Your task to perform on an android device: Open calendar and show me the third week of next month Image 0: 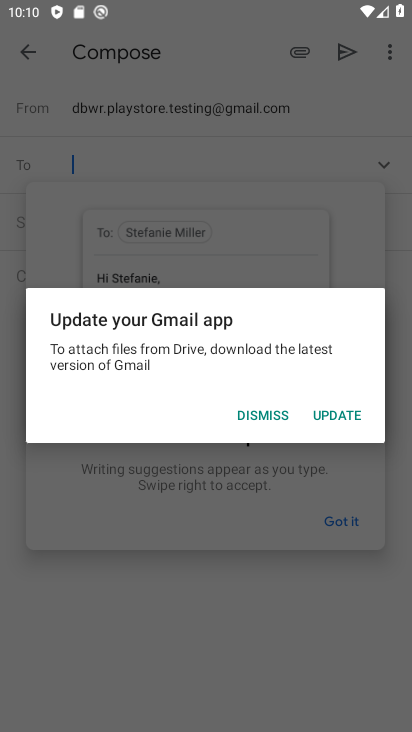
Step 0: press home button
Your task to perform on an android device: Open calendar and show me the third week of next month Image 1: 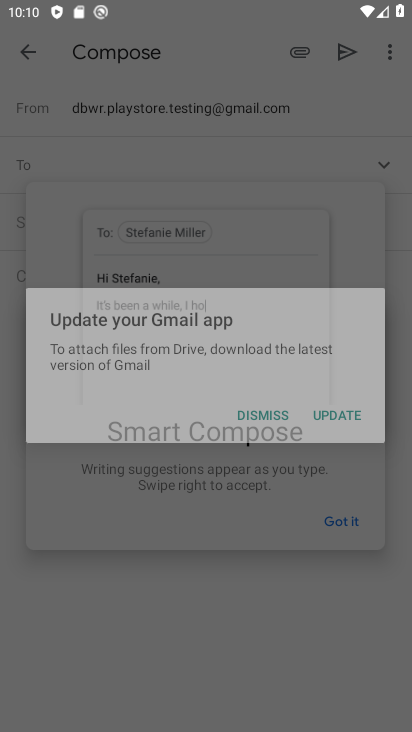
Step 1: press home button
Your task to perform on an android device: Open calendar and show me the third week of next month Image 2: 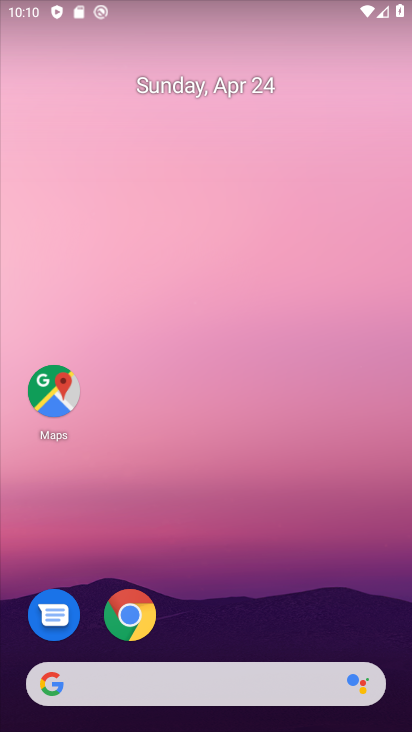
Step 2: drag from (219, 641) to (239, 213)
Your task to perform on an android device: Open calendar and show me the third week of next month Image 3: 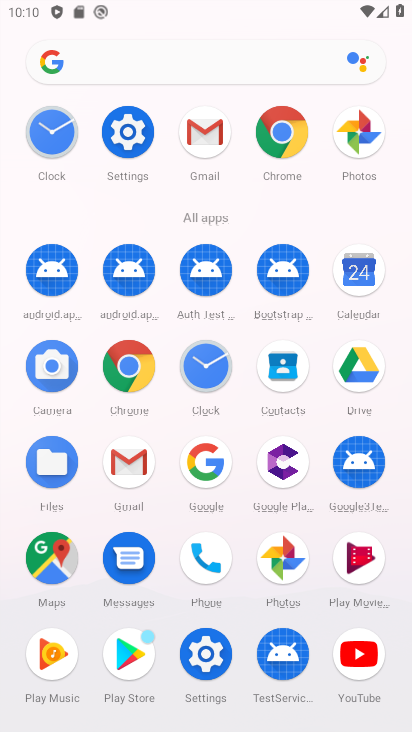
Step 3: click (354, 264)
Your task to perform on an android device: Open calendar and show me the third week of next month Image 4: 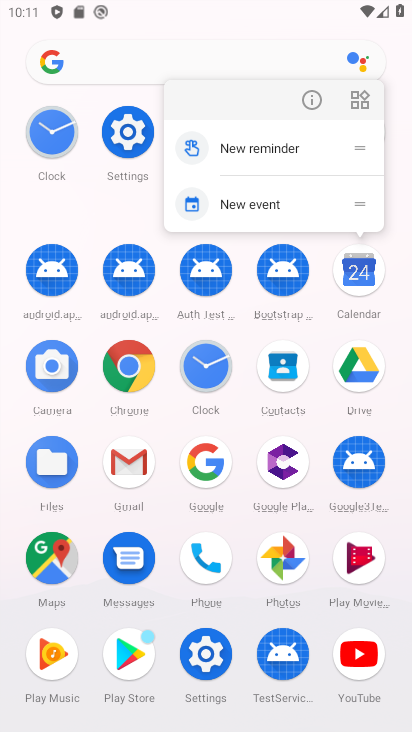
Step 4: click (367, 268)
Your task to perform on an android device: Open calendar and show me the third week of next month Image 5: 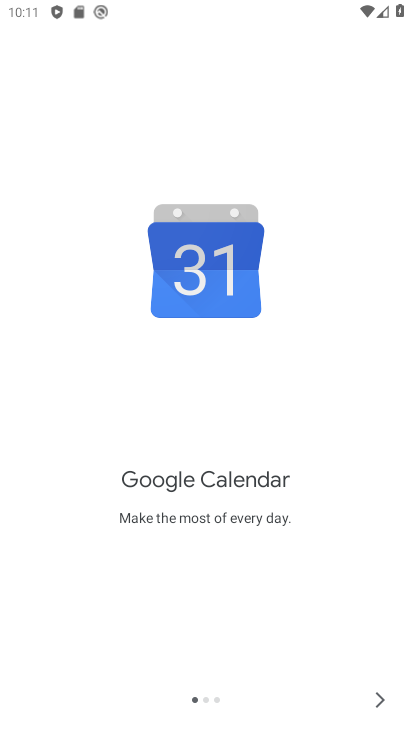
Step 5: click (384, 695)
Your task to perform on an android device: Open calendar and show me the third week of next month Image 6: 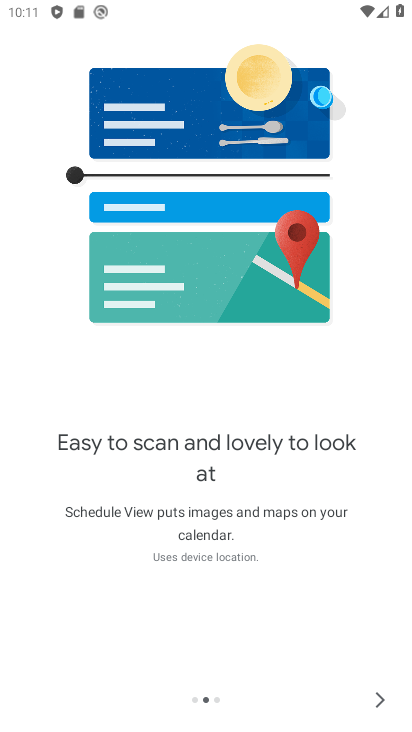
Step 6: click (385, 691)
Your task to perform on an android device: Open calendar and show me the third week of next month Image 7: 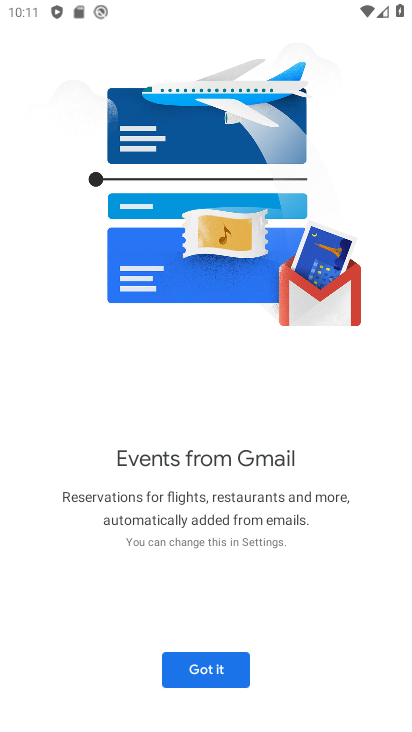
Step 7: click (195, 669)
Your task to perform on an android device: Open calendar and show me the third week of next month Image 8: 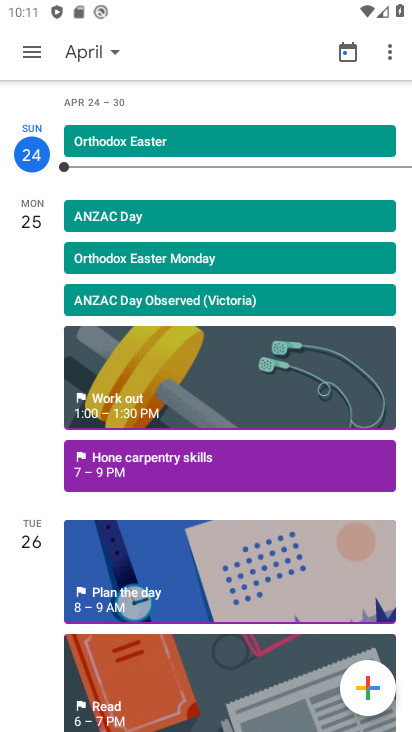
Step 8: click (15, 53)
Your task to perform on an android device: Open calendar and show me the third week of next month Image 9: 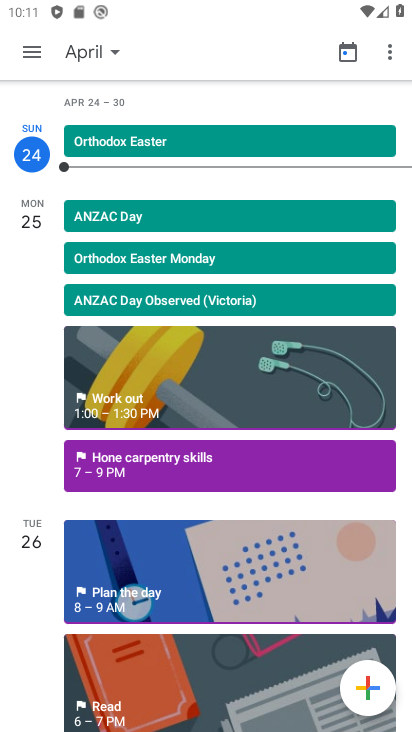
Step 9: click (37, 48)
Your task to perform on an android device: Open calendar and show me the third week of next month Image 10: 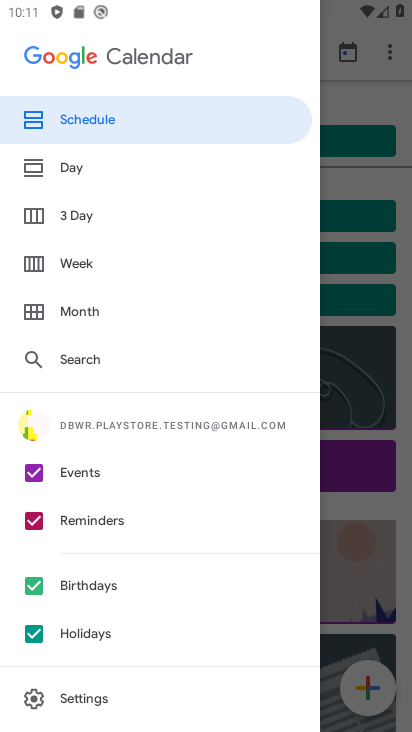
Step 10: click (51, 253)
Your task to perform on an android device: Open calendar and show me the third week of next month Image 11: 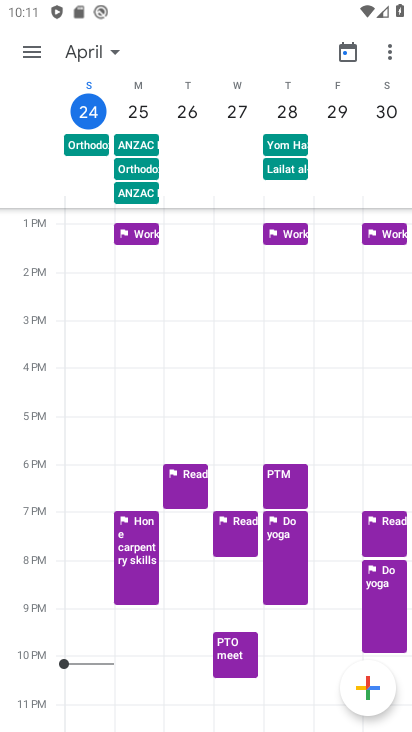
Step 11: drag from (360, 114) to (49, 110)
Your task to perform on an android device: Open calendar and show me the third week of next month Image 12: 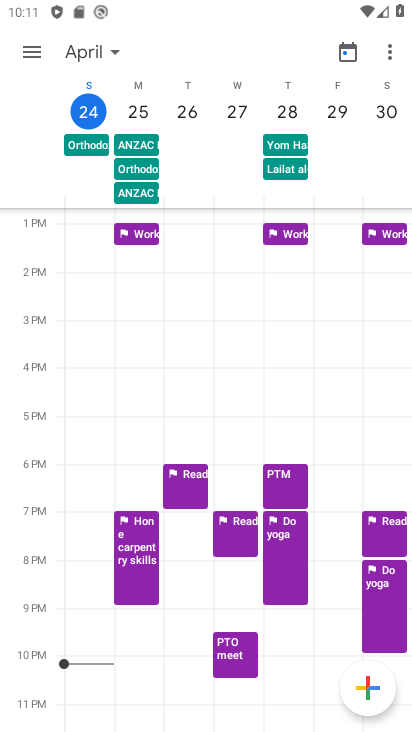
Step 12: drag from (395, 106) to (79, 114)
Your task to perform on an android device: Open calendar and show me the third week of next month Image 13: 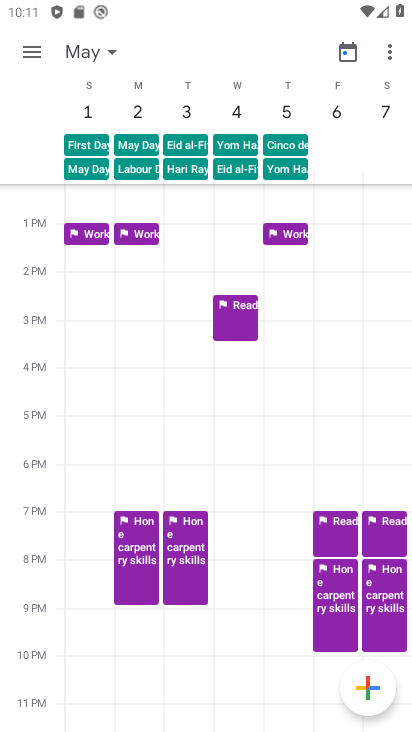
Step 13: drag from (274, 117) to (77, 117)
Your task to perform on an android device: Open calendar and show me the third week of next month Image 14: 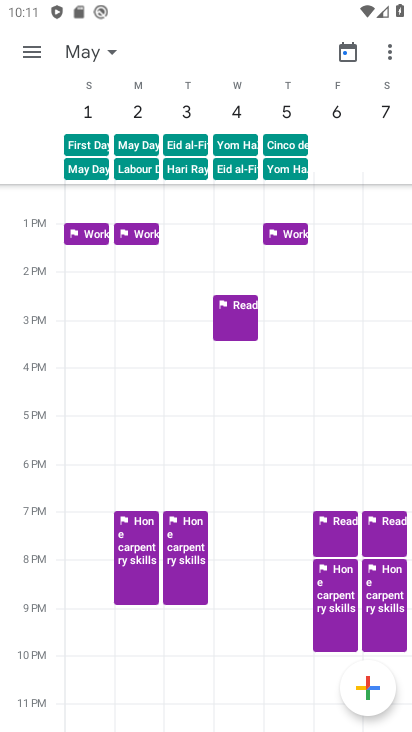
Step 14: drag from (377, 102) to (22, 104)
Your task to perform on an android device: Open calendar and show me the third week of next month Image 15: 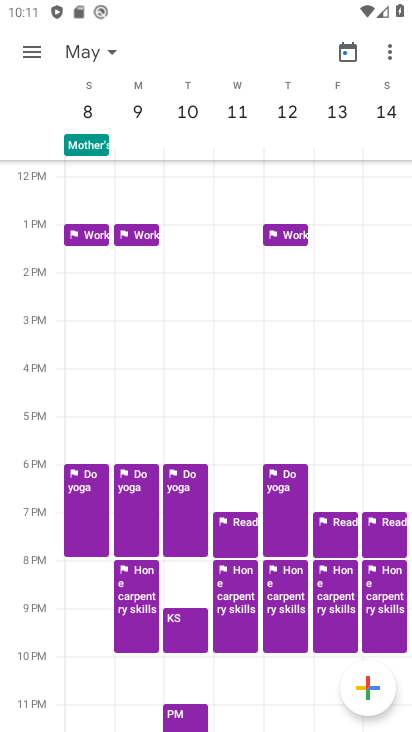
Step 15: drag from (387, 113) to (2, 121)
Your task to perform on an android device: Open calendar and show me the third week of next month Image 16: 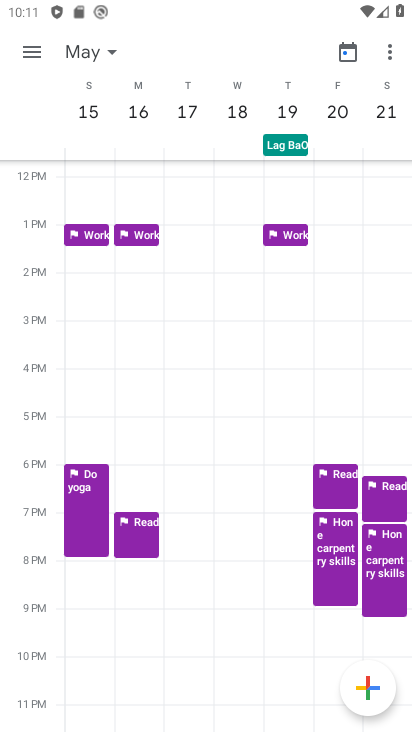
Step 16: click (83, 110)
Your task to perform on an android device: Open calendar and show me the third week of next month Image 17: 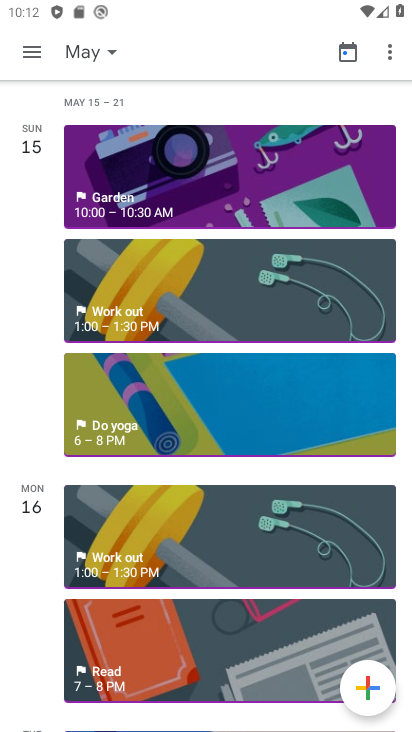
Step 17: task complete